Your task to perform on an android device: turn on improve location accuracy Image 0: 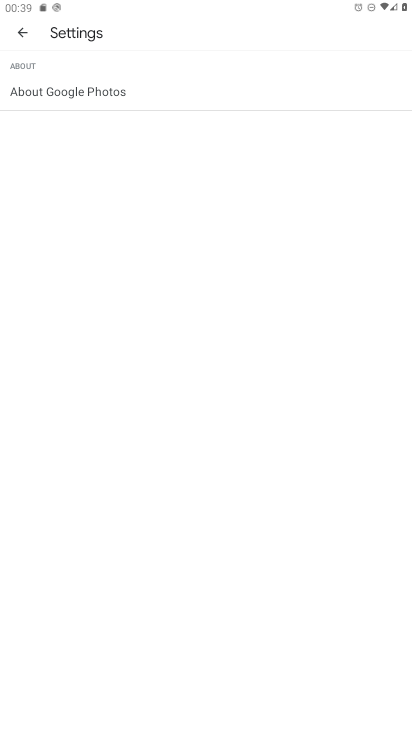
Step 0: press home button
Your task to perform on an android device: turn on improve location accuracy Image 1: 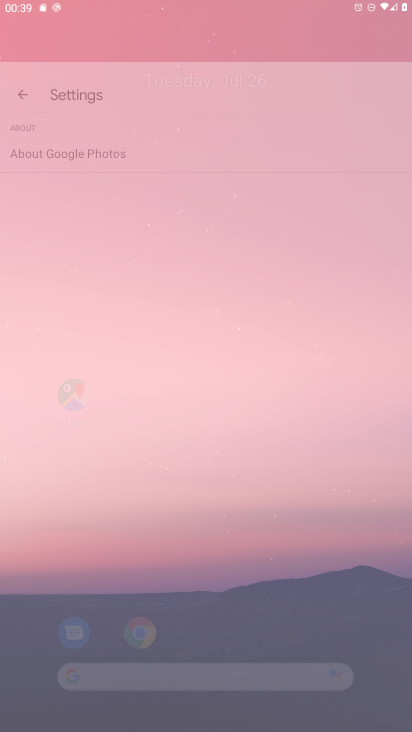
Step 1: drag from (246, 707) to (212, 34)
Your task to perform on an android device: turn on improve location accuracy Image 2: 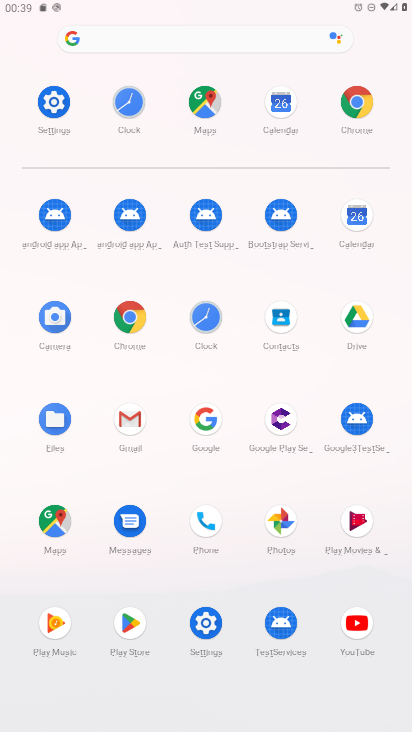
Step 2: click (201, 617)
Your task to perform on an android device: turn on improve location accuracy Image 3: 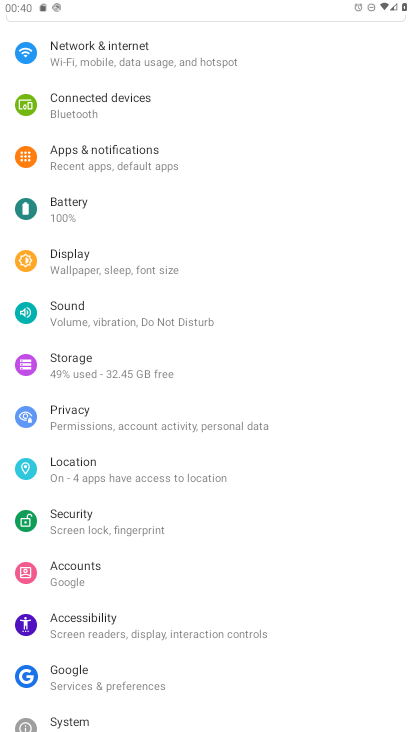
Step 3: click (47, 475)
Your task to perform on an android device: turn on improve location accuracy Image 4: 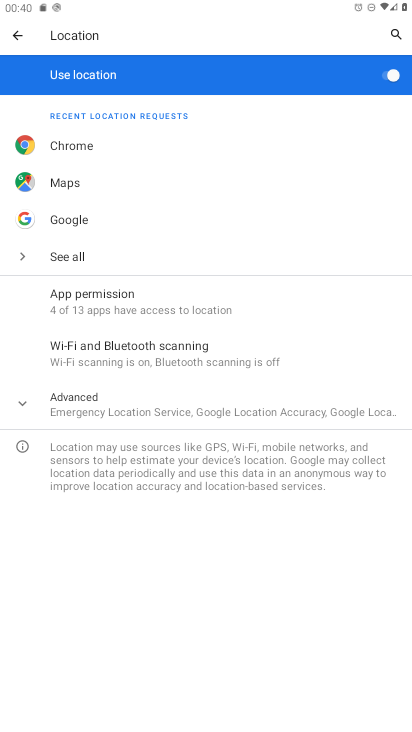
Step 4: click (86, 401)
Your task to perform on an android device: turn on improve location accuracy Image 5: 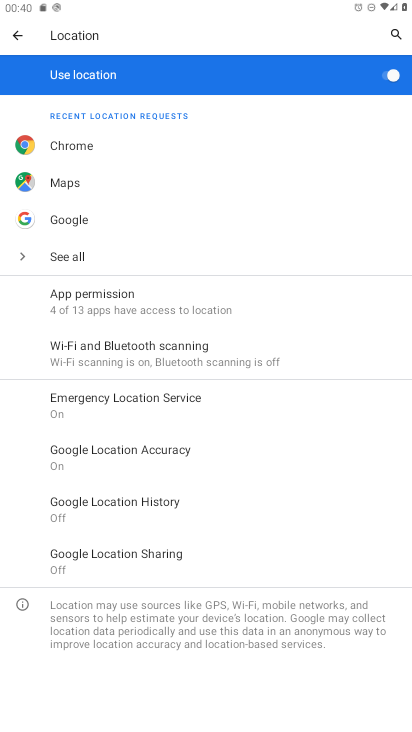
Step 5: click (121, 450)
Your task to perform on an android device: turn on improve location accuracy Image 6: 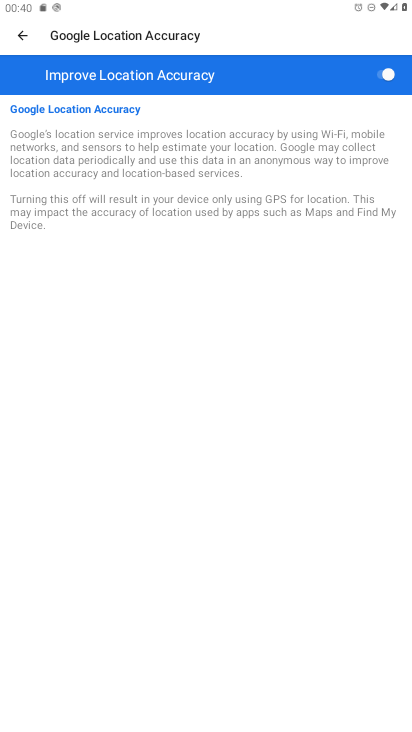
Step 6: task complete